Your task to perform on an android device: check storage Image 0: 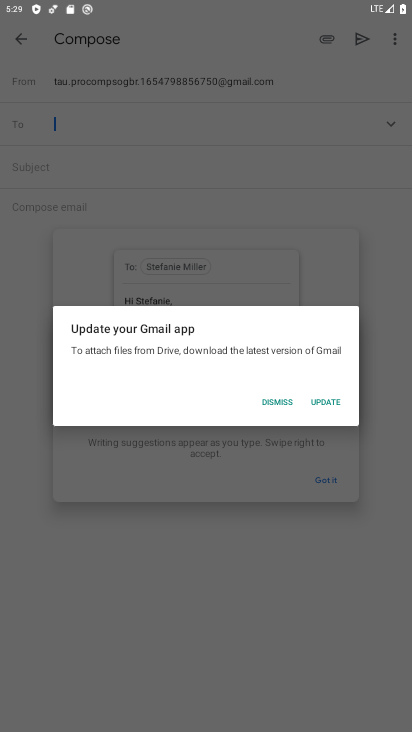
Step 0: press home button
Your task to perform on an android device: check storage Image 1: 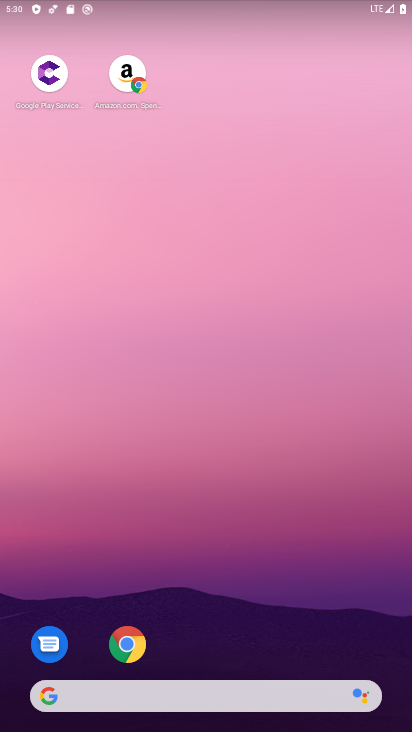
Step 1: drag from (242, 700) to (283, 50)
Your task to perform on an android device: check storage Image 2: 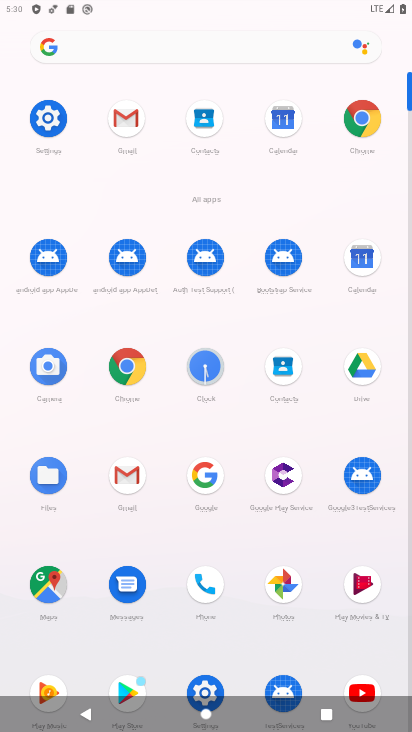
Step 2: click (39, 113)
Your task to perform on an android device: check storage Image 3: 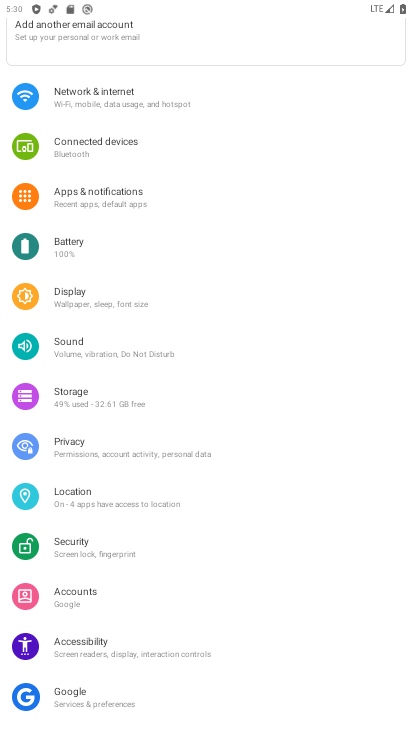
Step 3: click (97, 393)
Your task to perform on an android device: check storage Image 4: 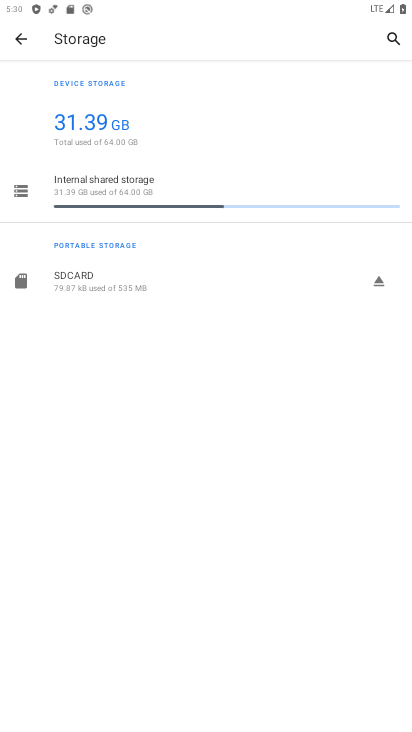
Step 4: task complete